Your task to perform on an android device: Go to Yahoo.com Image 0: 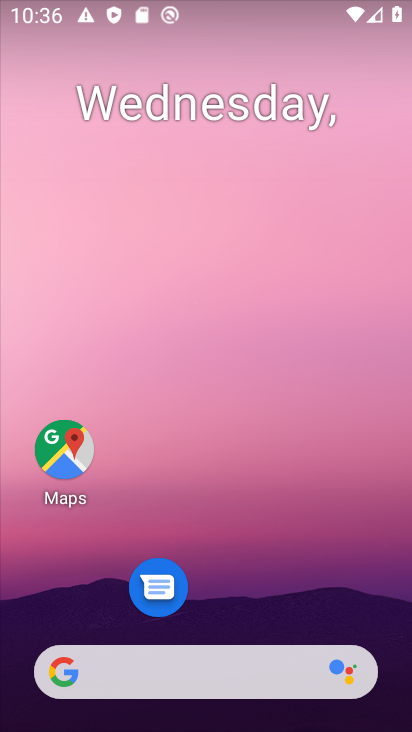
Step 0: press home button
Your task to perform on an android device: Go to Yahoo.com Image 1: 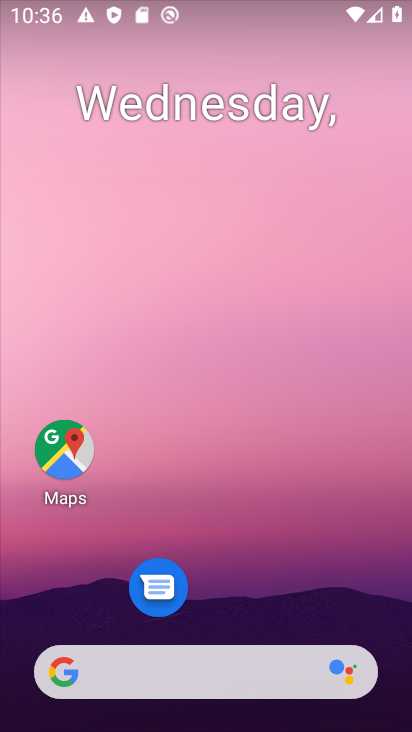
Step 1: drag from (225, 621) to (248, 64)
Your task to perform on an android device: Go to Yahoo.com Image 2: 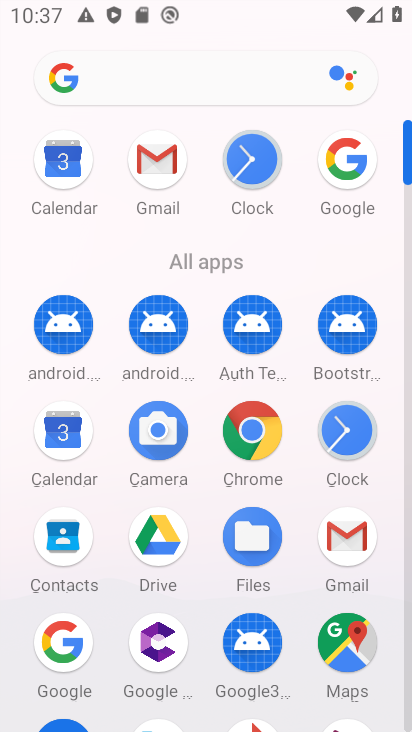
Step 2: click (259, 430)
Your task to perform on an android device: Go to Yahoo.com Image 3: 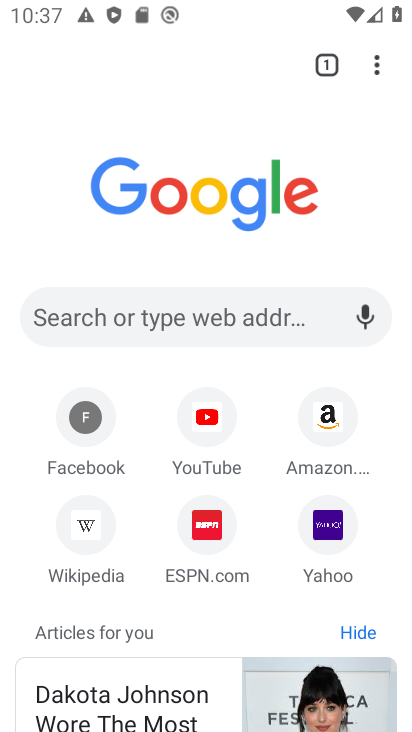
Step 3: click (330, 526)
Your task to perform on an android device: Go to Yahoo.com Image 4: 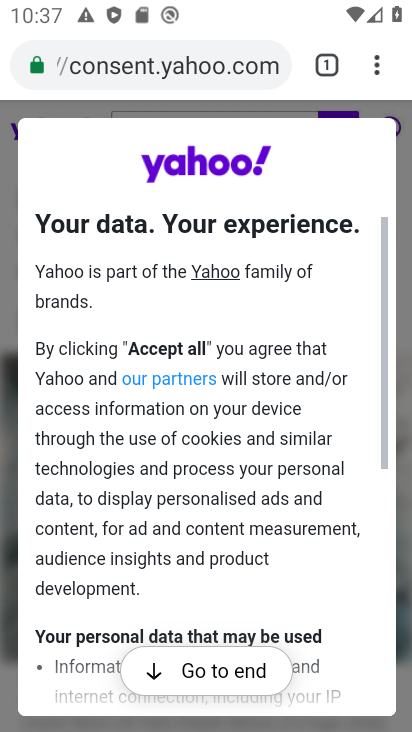
Step 4: click (221, 660)
Your task to perform on an android device: Go to Yahoo.com Image 5: 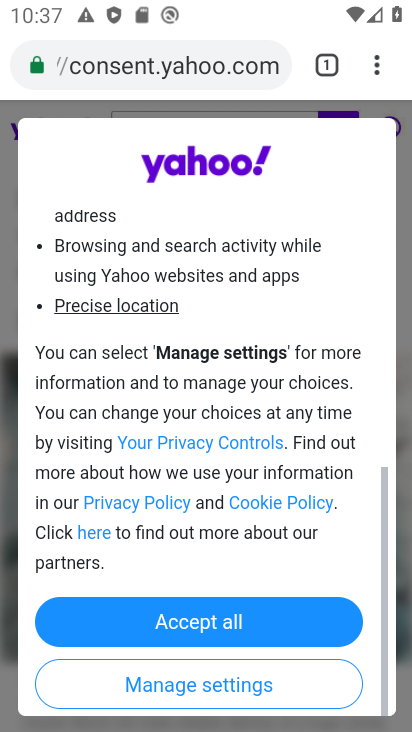
Step 5: click (200, 622)
Your task to perform on an android device: Go to Yahoo.com Image 6: 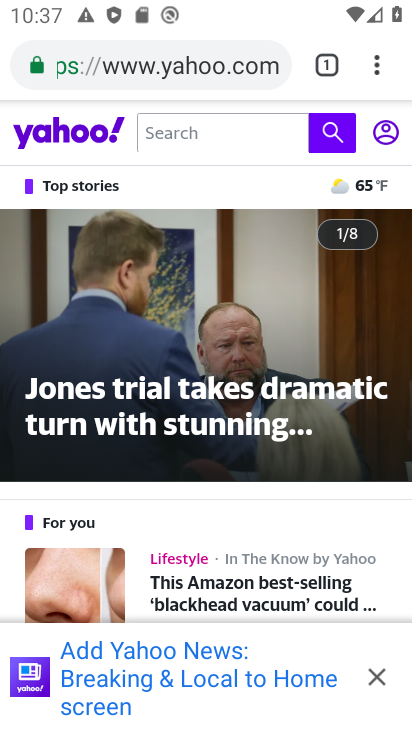
Step 6: task complete